Your task to perform on an android device: Go to sound settings Image 0: 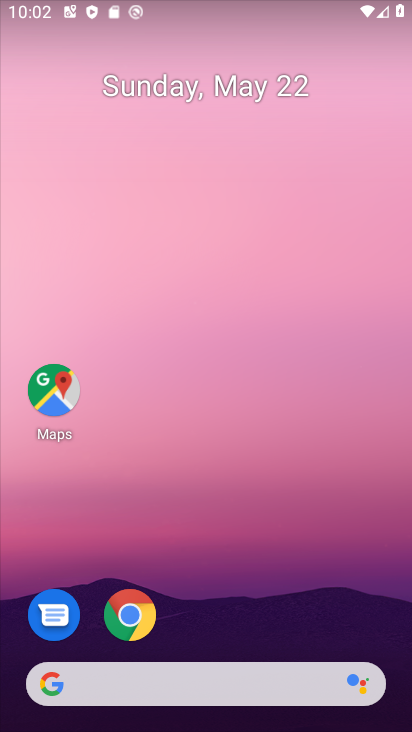
Step 0: drag from (247, 600) to (285, 23)
Your task to perform on an android device: Go to sound settings Image 1: 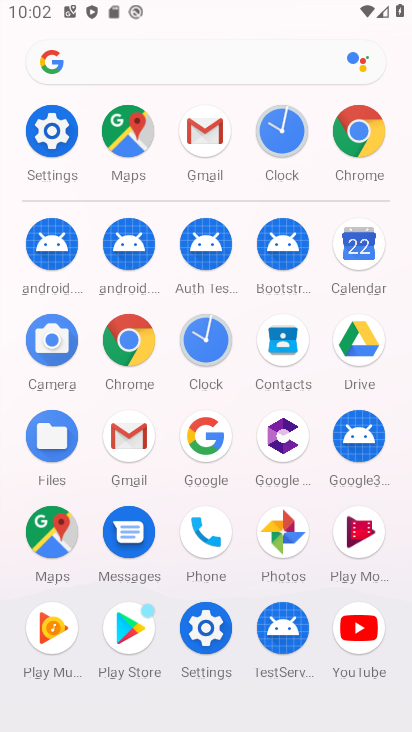
Step 1: click (53, 128)
Your task to perform on an android device: Go to sound settings Image 2: 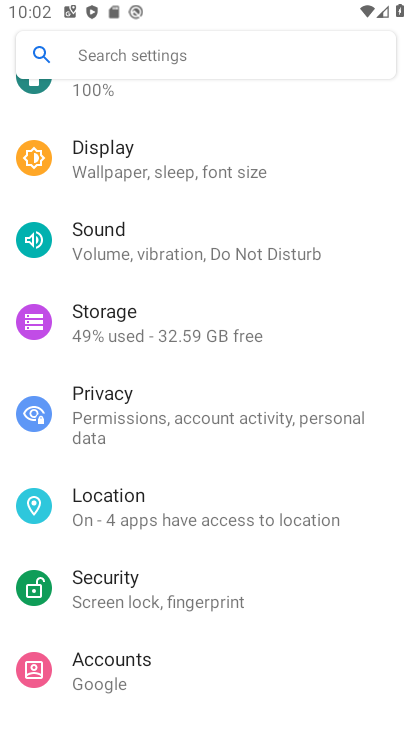
Step 2: click (157, 244)
Your task to perform on an android device: Go to sound settings Image 3: 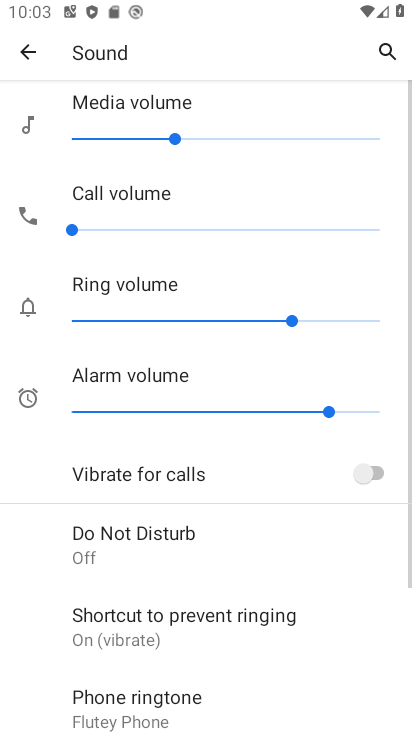
Step 3: task complete